Your task to perform on an android device: Open settings on Google Maps Image 0: 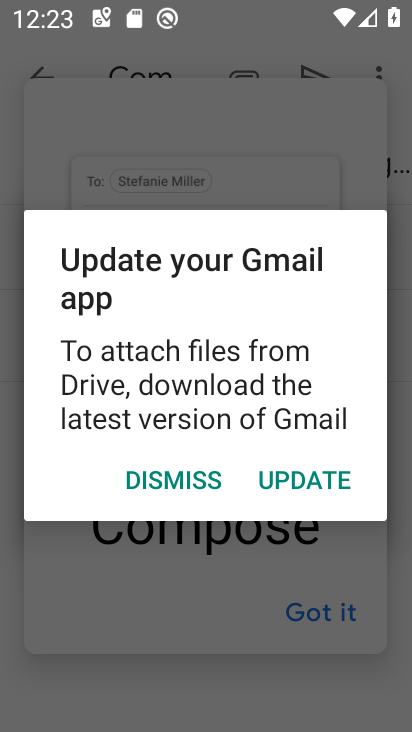
Step 0: press home button
Your task to perform on an android device: Open settings on Google Maps Image 1: 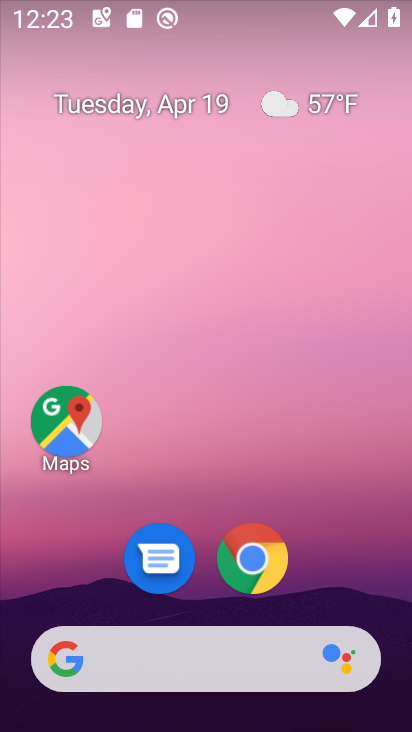
Step 1: press home button
Your task to perform on an android device: Open settings on Google Maps Image 2: 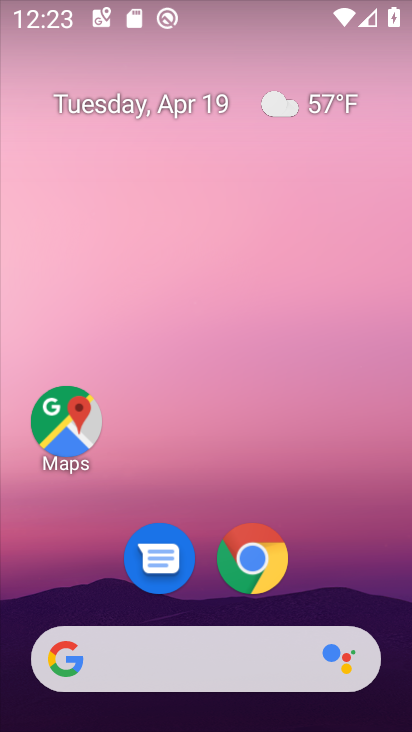
Step 2: click (56, 441)
Your task to perform on an android device: Open settings on Google Maps Image 3: 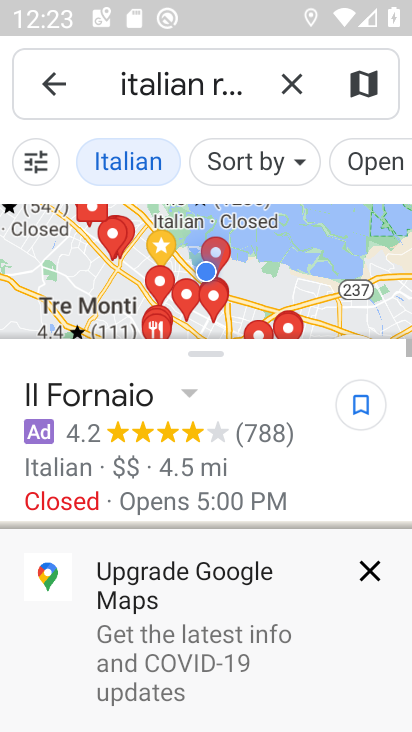
Step 3: press back button
Your task to perform on an android device: Open settings on Google Maps Image 4: 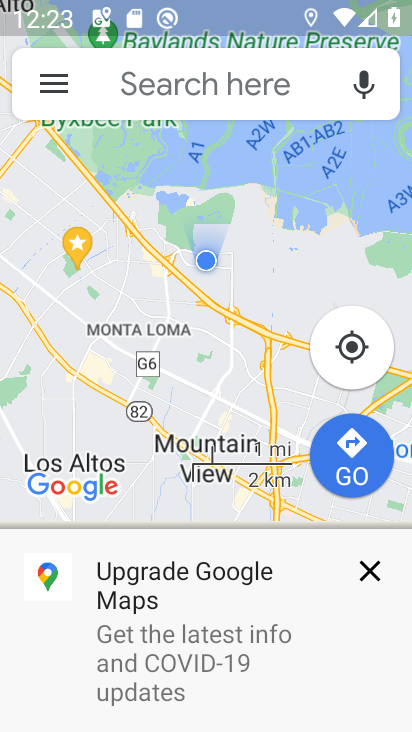
Step 4: click (54, 90)
Your task to perform on an android device: Open settings on Google Maps Image 5: 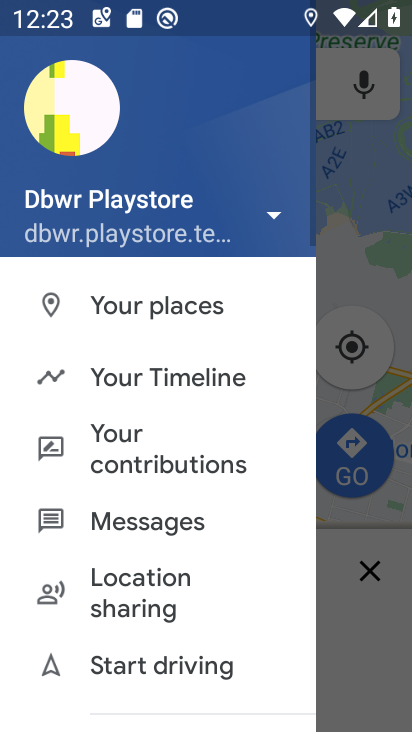
Step 5: drag from (151, 670) to (124, 148)
Your task to perform on an android device: Open settings on Google Maps Image 6: 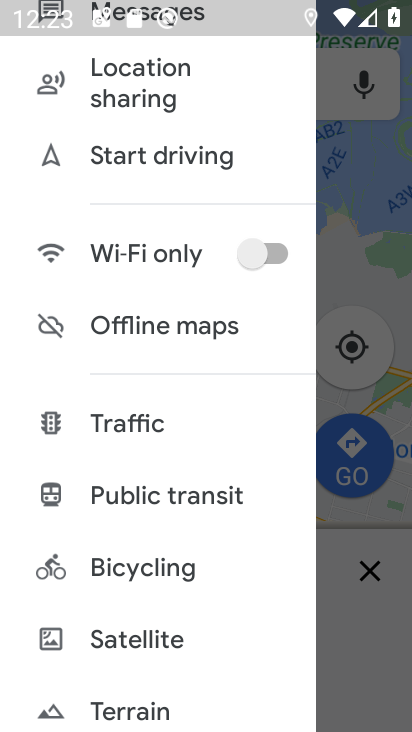
Step 6: drag from (150, 671) to (144, 151)
Your task to perform on an android device: Open settings on Google Maps Image 7: 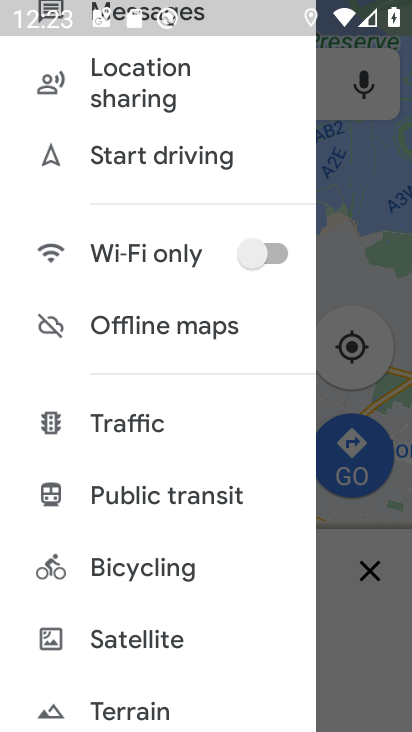
Step 7: drag from (152, 627) to (118, 193)
Your task to perform on an android device: Open settings on Google Maps Image 8: 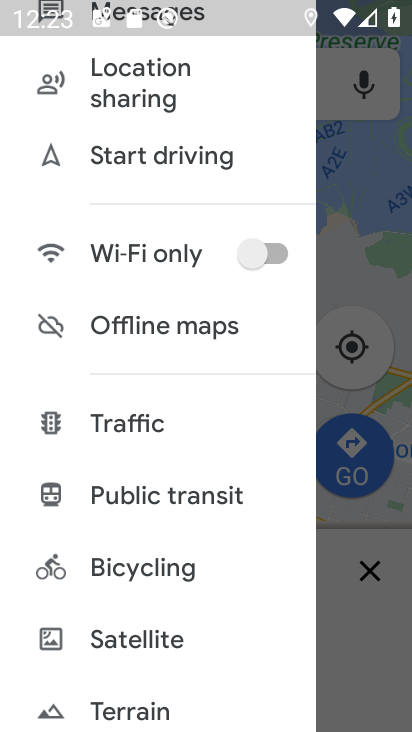
Step 8: drag from (65, 641) to (108, 164)
Your task to perform on an android device: Open settings on Google Maps Image 9: 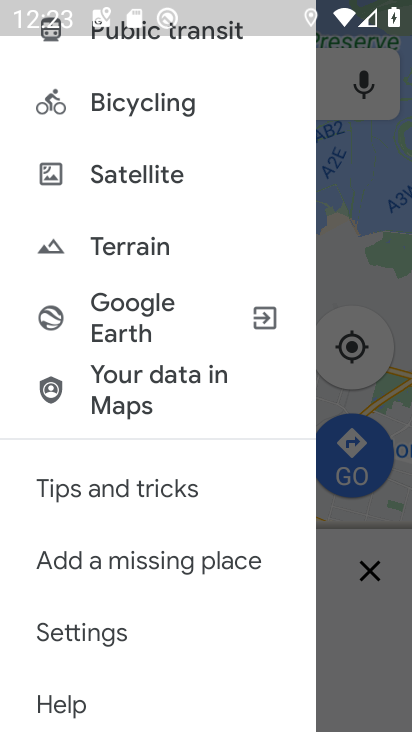
Step 9: click (87, 634)
Your task to perform on an android device: Open settings on Google Maps Image 10: 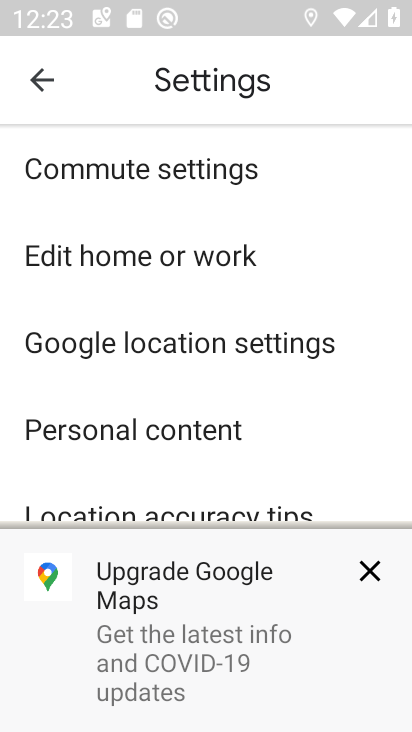
Step 10: click (371, 571)
Your task to perform on an android device: Open settings on Google Maps Image 11: 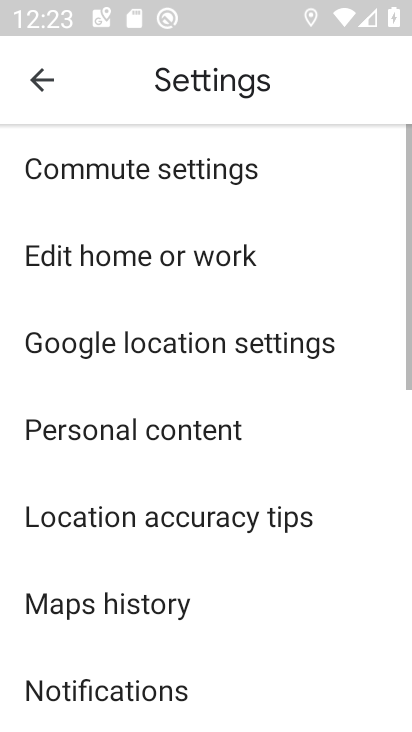
Step 11: task complete